Your task to perform on an android device: Check the weather Image 0: 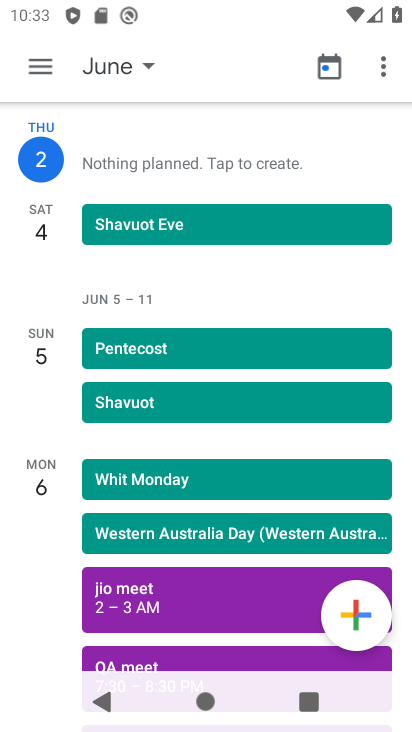
Step 0: press home button
Your task to perform on an android device: Check the weather Image 1: 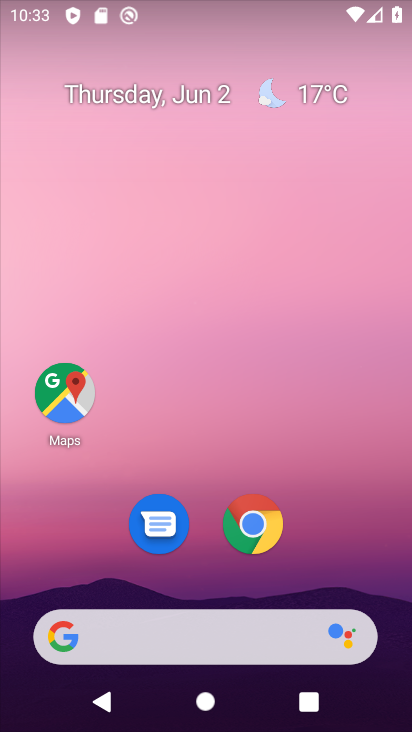
Step 1: click (288, 94)
Your task to perform on an android device: Check the weather Image 2: 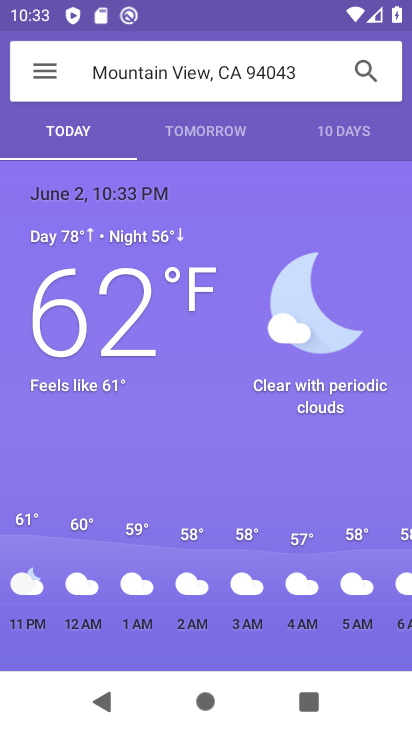
Step 2: task complete